Your task to perform on an android device: Open Maps and search for coffee Image 0: 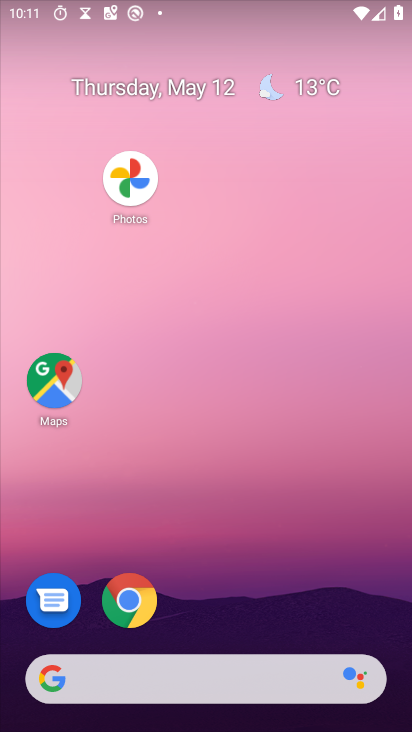
Step 0: drag from (361, 546) to (9, 18)
Your task to perform on an android device: Open Maps and search for coffee Image 1: 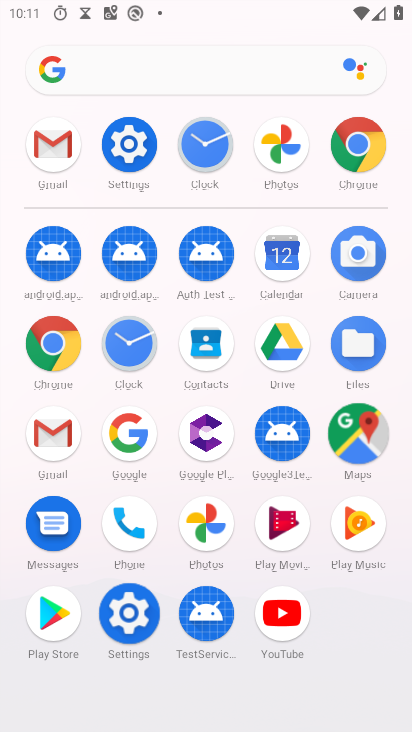
Step 1: click (361, 426)
Your task to perform on an android device: Open Maps and search for coffee Image 2: 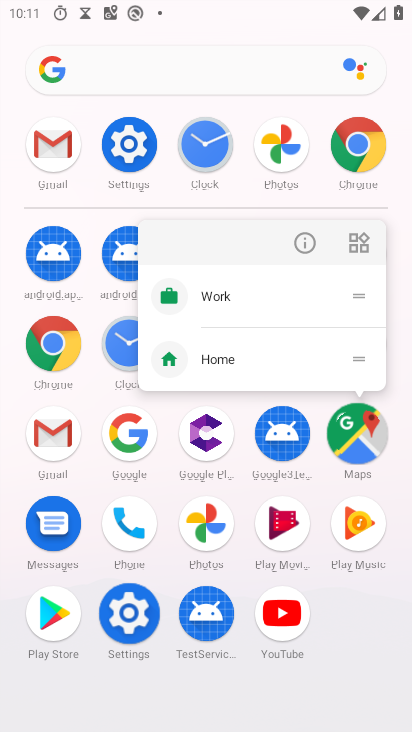
Step 2: click (355, 447)
Your task to perform on an android device: Open Maps and search for coffee Image 3: 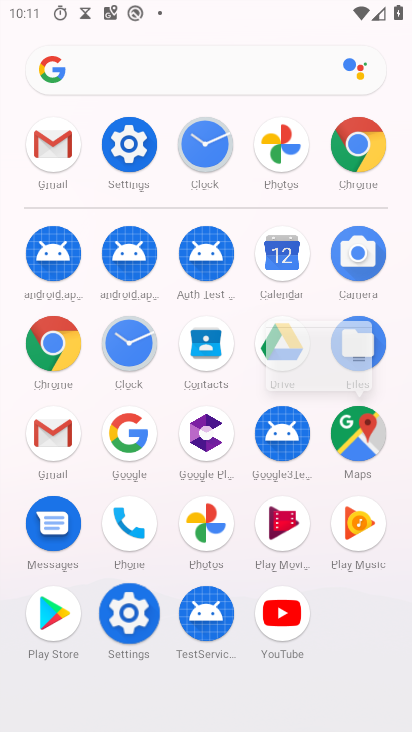
Step 3: click (357, 447)
Your task to perform on an android device: Open Maps and search for coffee Image 4: 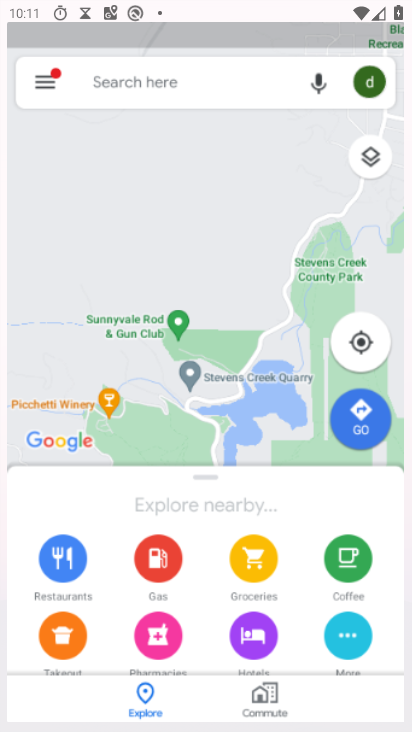
Step 4: click (355, 432)
Your task to perform on an android device: Open Maps and search for coffee Image 5: 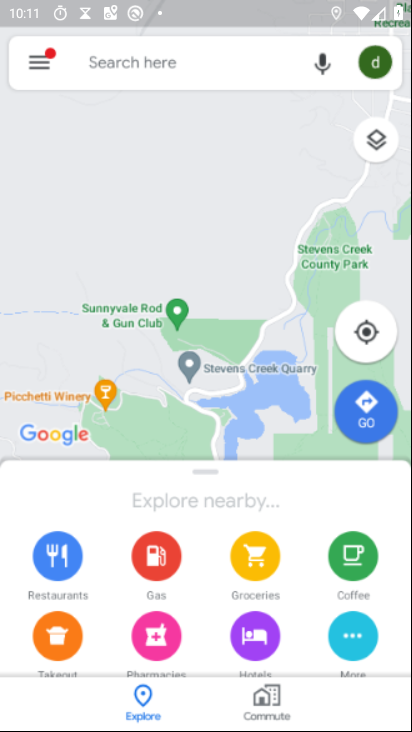
Step 5: click (356, 438)
Your task to perform on an android device: Open Maps and search for coffee Image 6: 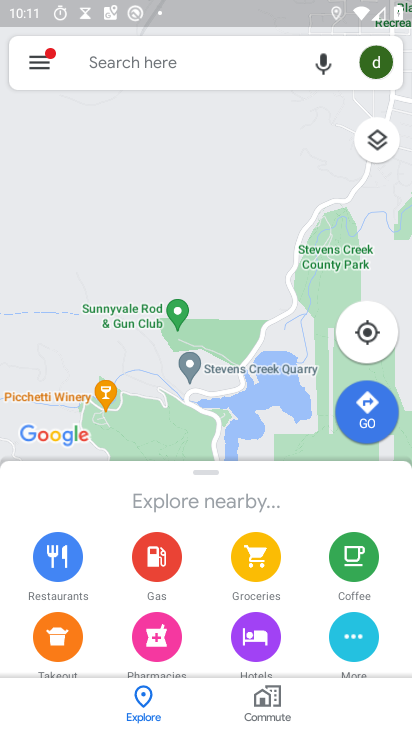
Step 6: click (350, 439)
Your task to perform on an android device: Open Maps and search for coffee Image 7: 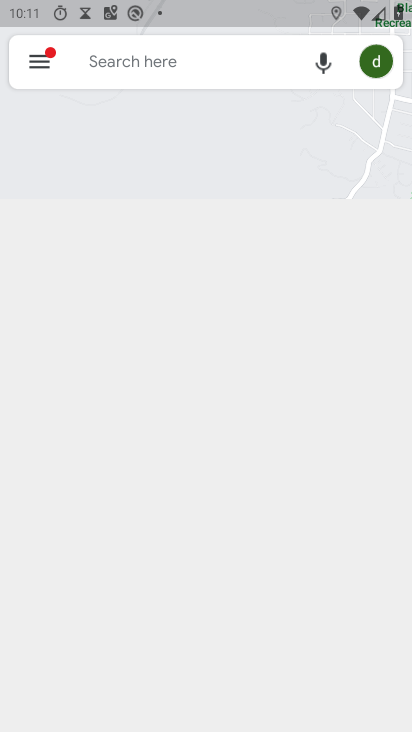
Step 7: click (104, 59)
Your task to perform on an android device: Open Maps and search for coffee Image 8: 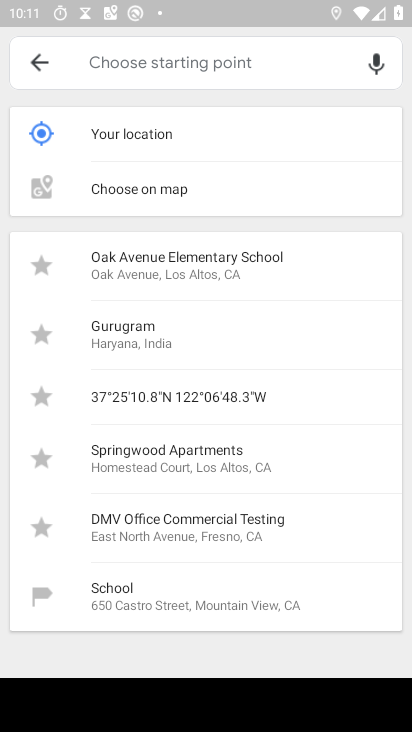
Step 8: type "coffee"
Your task to perform on an android device: Open Maps and search for coffee Image 9: 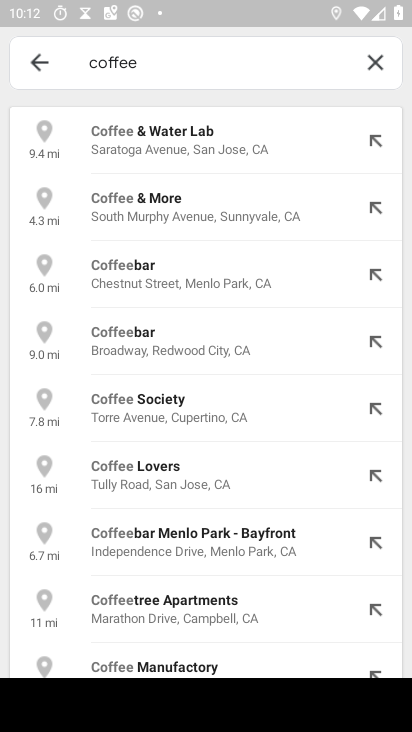
Step 9: click (144, 125)
Your task to perform on an android device: Open Maps and search for coffee Image 10: 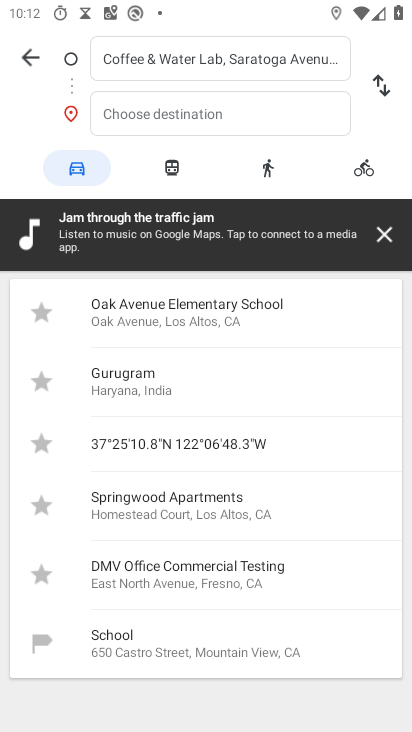
Step 10: click (18, 46)
Your task to perform on an android device: Open Maps and search for coffee Image 11: 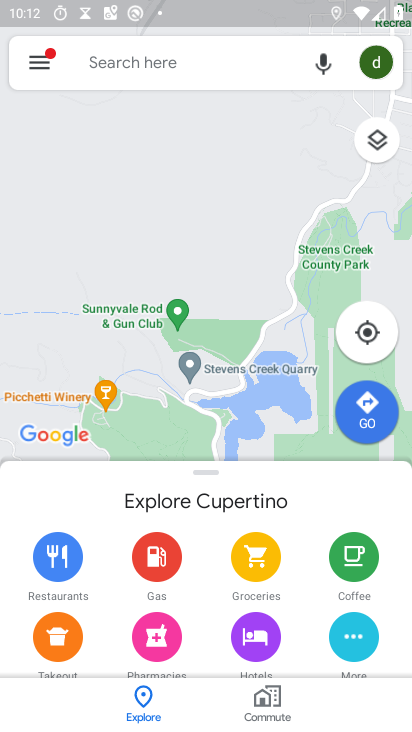
Step 11: task complete